Your task to perform on an android device: check out phone information Image 0: 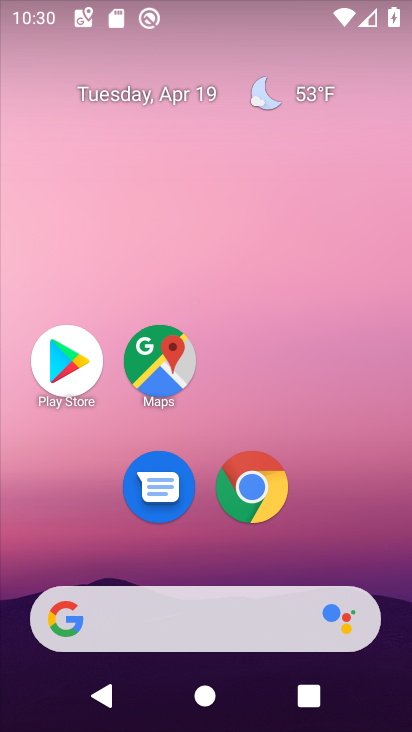
Step 0: drag from (397, 667) to (315, 7)
Your task to perform on an android device: check out phone information Image 1: 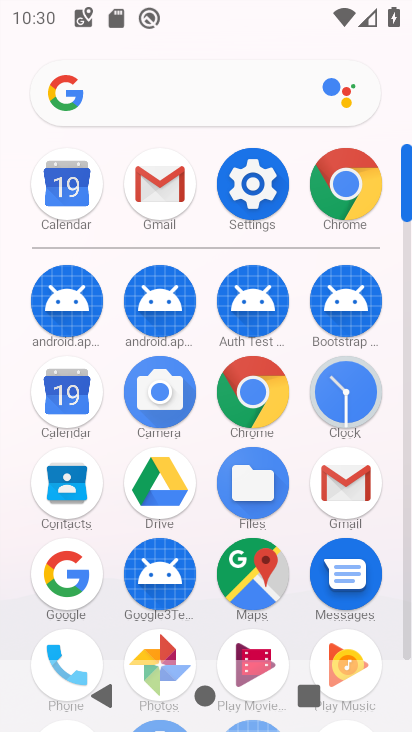
Step 1: drag from (9, 496) to (7, 232)
Your task to perform on an android device: check out phone information Image 2: 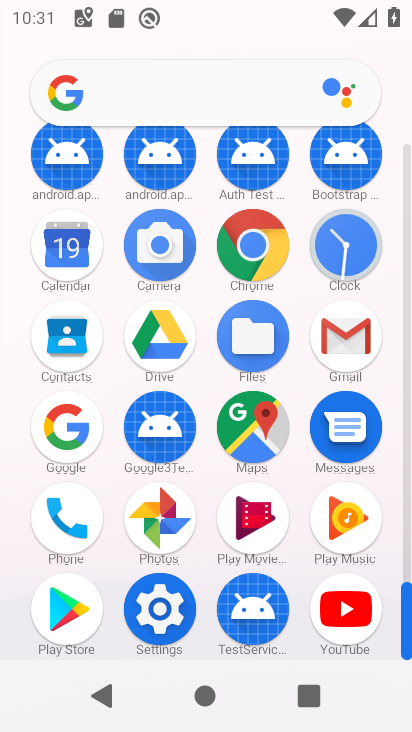
Step 2: drag from (11, 520) to (11, 260)
Your task to perform on an android device: check out phone information Image 3: 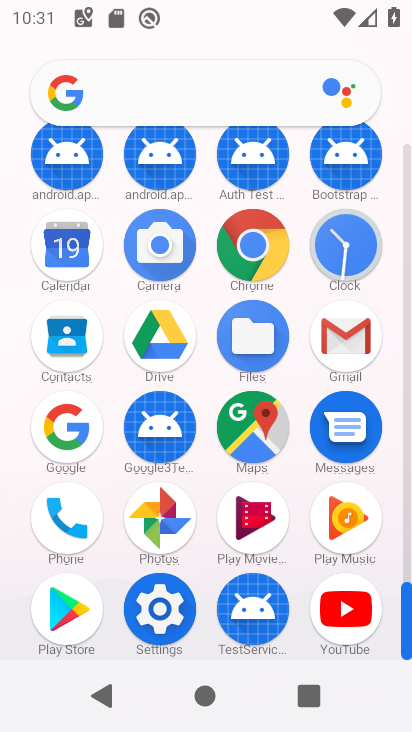
Step 3: drag from (19, 536) to (6, 202)
Your task to perform on an android device: check out phone information Image 4: 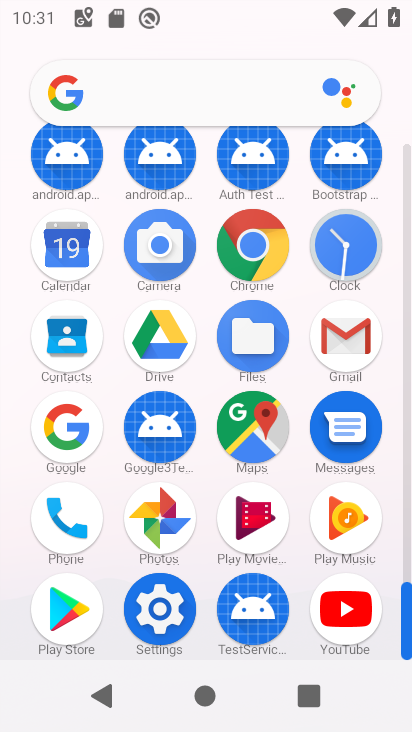
Step 4: click (159, 605)
Your task to perform on an android device: check out phone information Image 5: 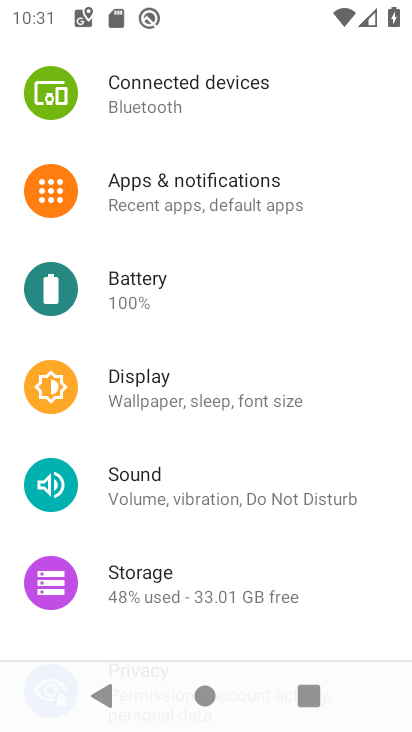
Step 5: drag from (318, 539) to (286, 78)
Your task to perform on an android device: check out phone information Image 6: 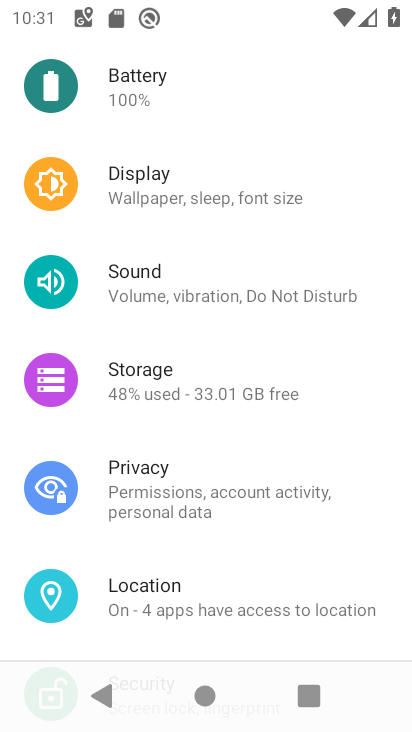
Step 6: drag from (306, 519) to (291, 64)
Your task to perform on an android device: check out phone information Image 7: 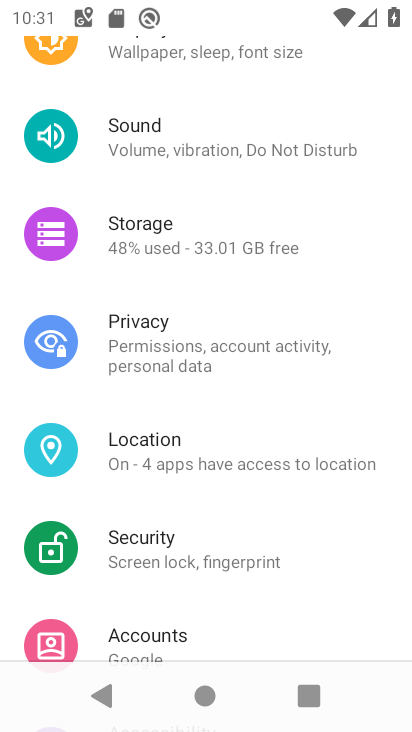
Step 7: drag from (296, 495) to (318, 123)
Your task to perform on an android device: check out phone information Image 8: 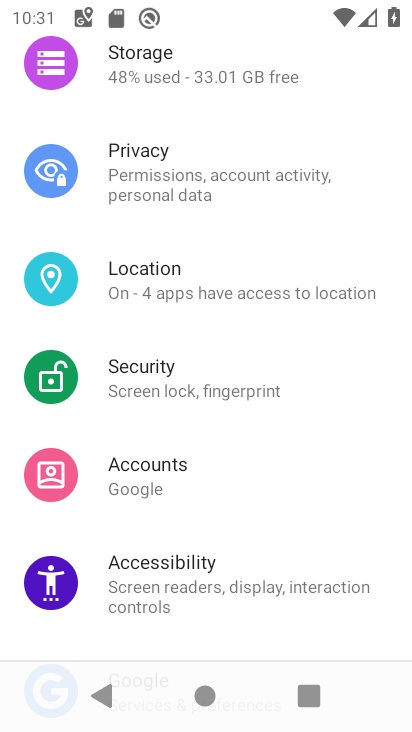
Step 8: drag from (300, 539) to (284, 144)
Your task to perform on an android device: check out phone information Image 9: 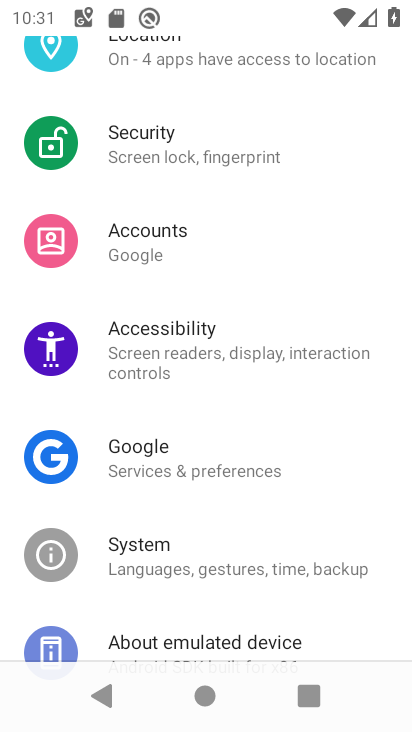
Step 9: drag from (259, 479) to (259, 155)
Your task to perform on an android device: check out phone information Image 10: 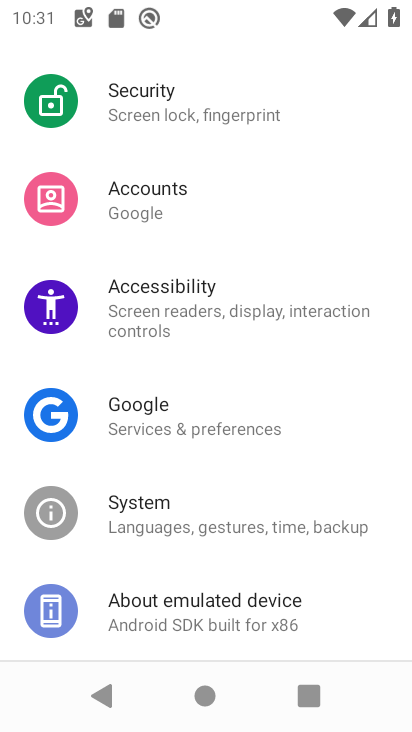
Step 10: drag from (321, 582) to (323, 216)
Your task to perform on an android device: check out phone information Image 11: 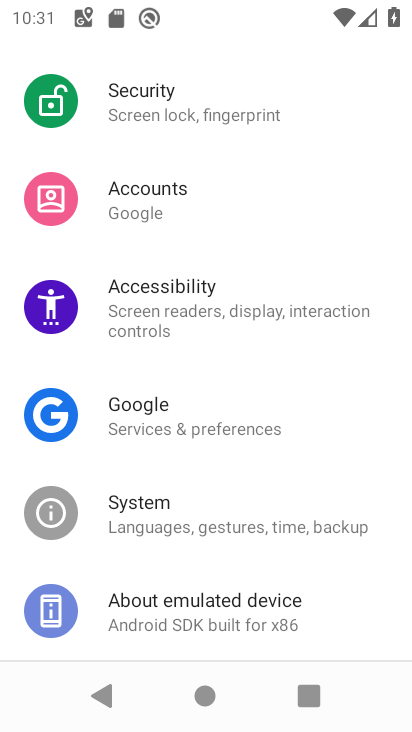
Step 11: click (248, 625)
Your task to perform on an android device: check out phone information Image 12: 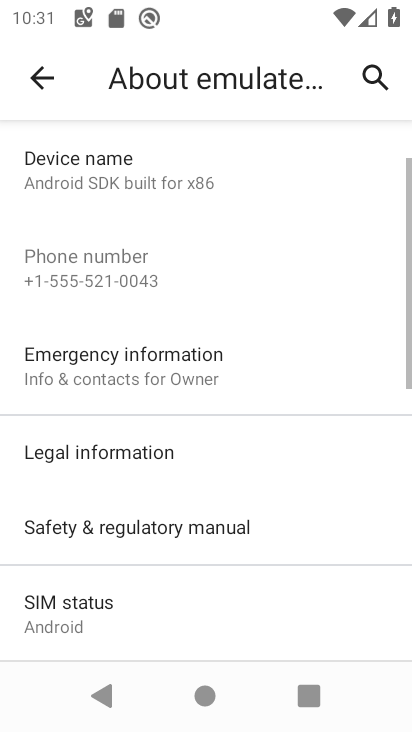
Step 12: drag from (301, 543) to (290, 224)
Your task to perform on an android device: check out phone information Image 13: 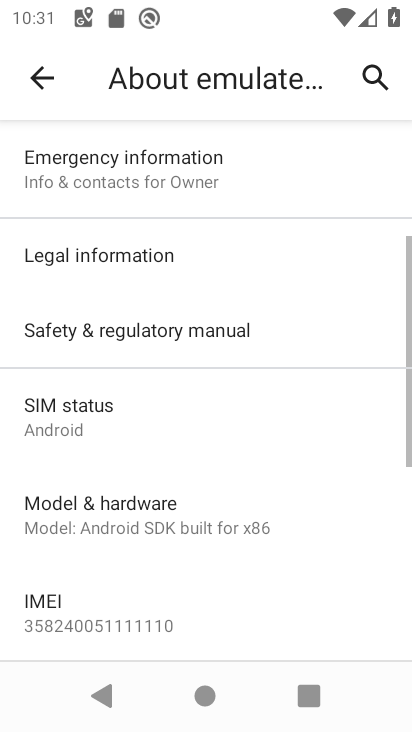
Step 13: drag from (288, 573) to (259, 172)
Your task to perform on an android device: check out phone information Image 14: 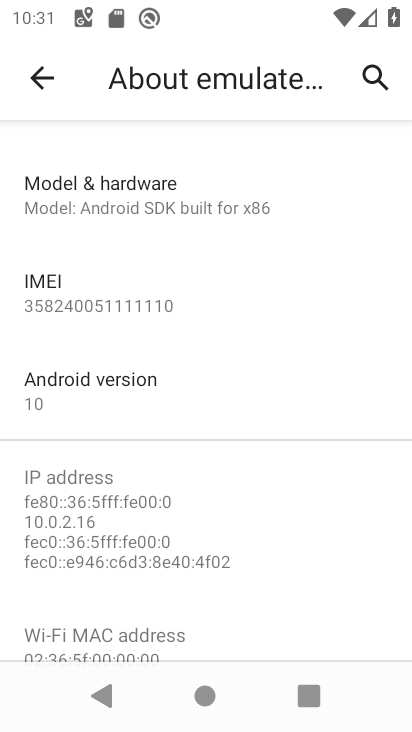
Step 14: drag from (260, 579) to (243, 207)
Your task to perform on an android device: check out phone information Image 15: 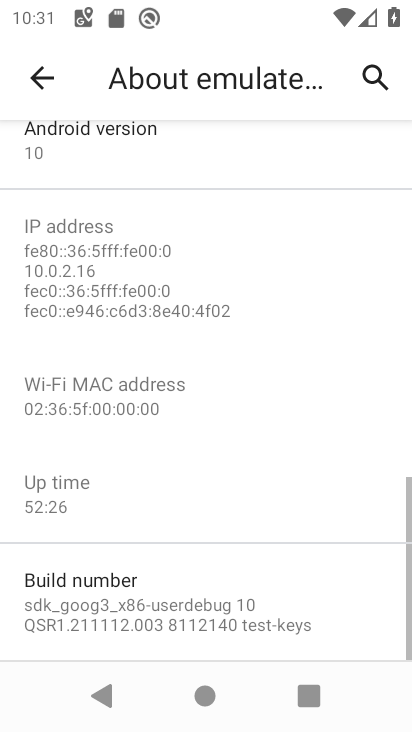
Step 15: drag from (239, 526) to (245, 169)
Your task to perform on an android device: check out phone information Image 16: 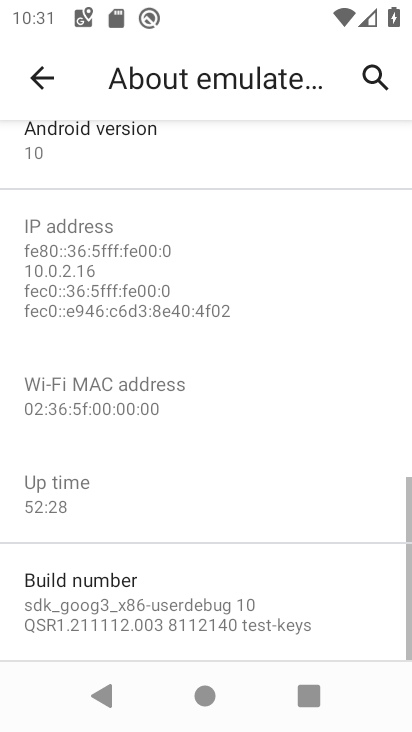
Step 16: drag from (235, 323) to (242, 571)
Your task to perform on an android device: check out phone information Image 17: 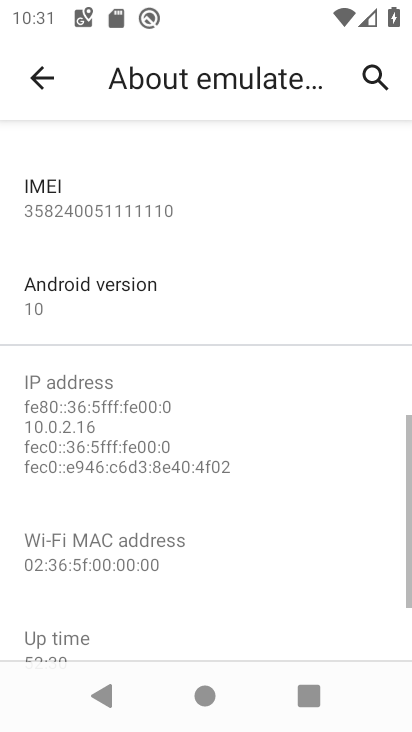
Step 17: drag from (251, 277) to (253, 546)
Your task to perform on an android device: check out phone information Image 18: 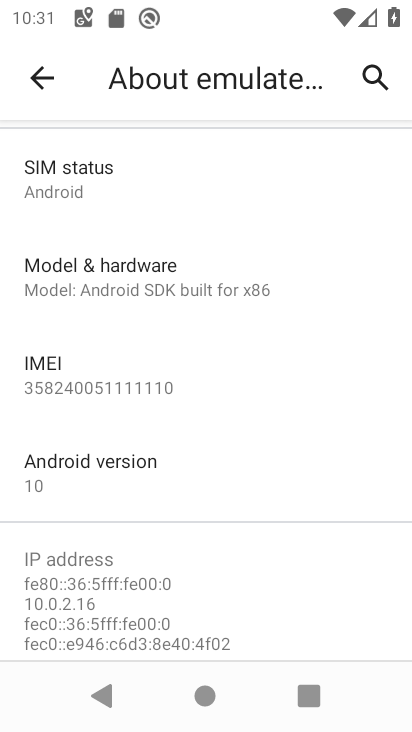
Step 18: drag from (249, 223) to (253, 438)
Your task to perform on an android device: check out phone information Image 19: 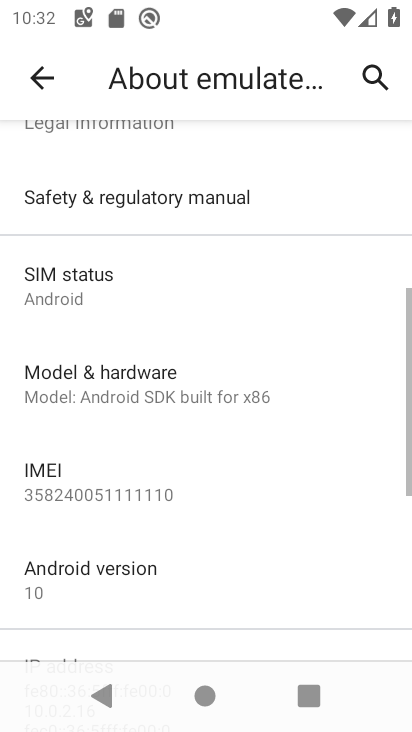
Step 19: drag from (248, 264) to (250, 562)
Your task to perform on an android device: check out phone information Image 20: 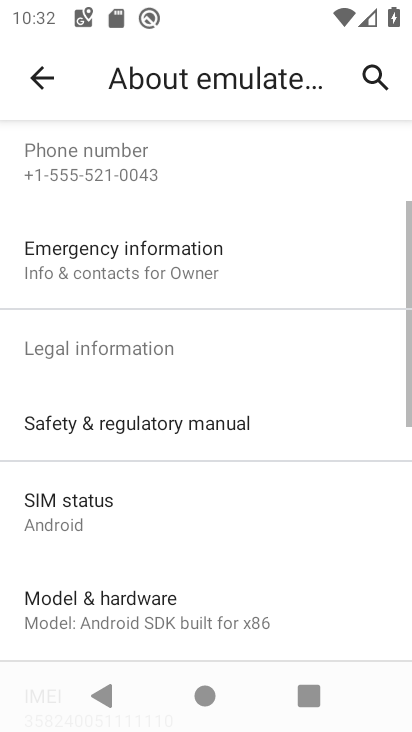
Step 20: drag from (267, 207) to (275, 581)
Your task to perform on an android device: check out phone information Image 21: 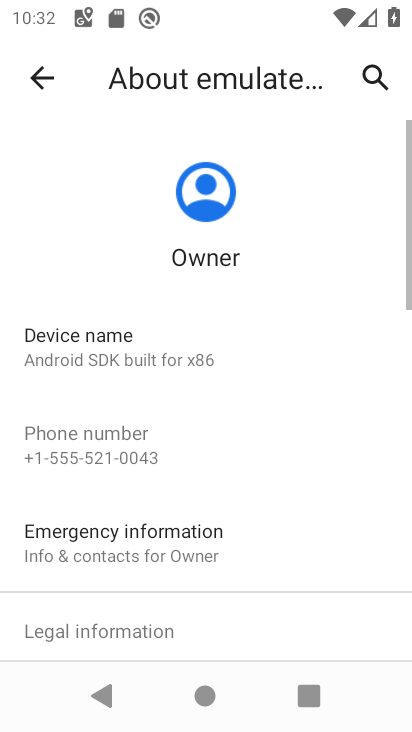
Step 21: click (41, 94)
Your task to perform on an android device: check out phone information Image 22: 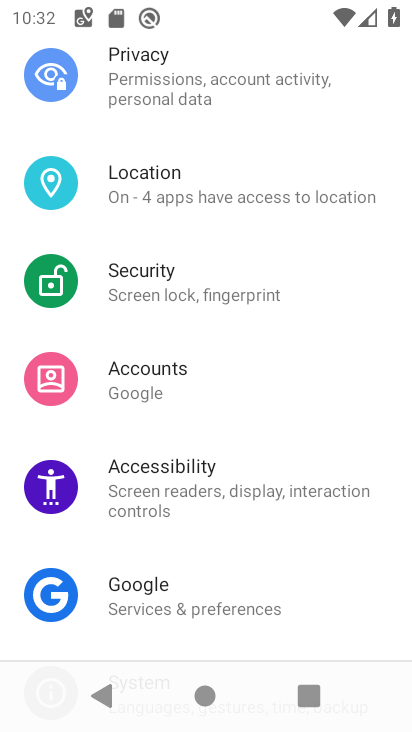
Step 22: drag from (289, 458) to (287, 62)
Your task to perform on an android device: check out phone information Image 23: 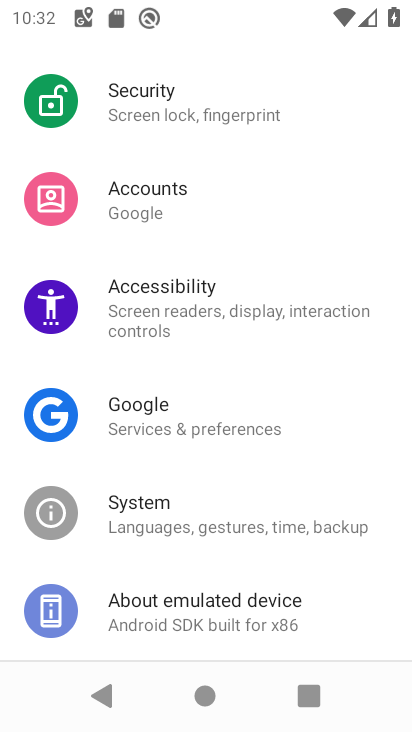
Step 23: drag from (298, 541) to (288, 156)
Your task to perform on an android device: check out phone information Image 24: 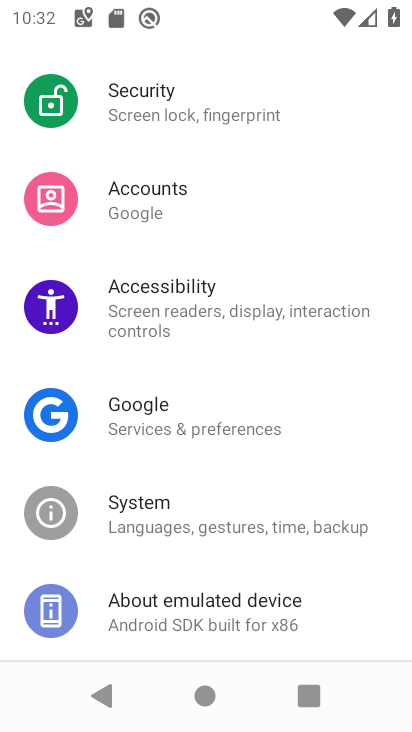
Step 24: click (275, 609)
Your task to perform on an android device: check out phone information Image 25: 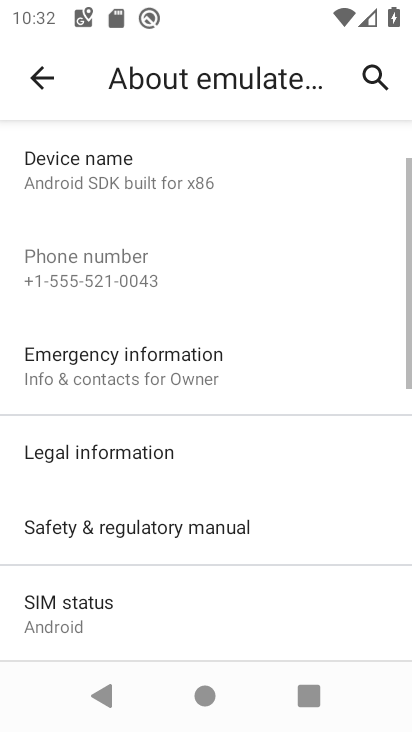
Step 25: task complete